Your task to perform on an android device: Go to Google Image 0: 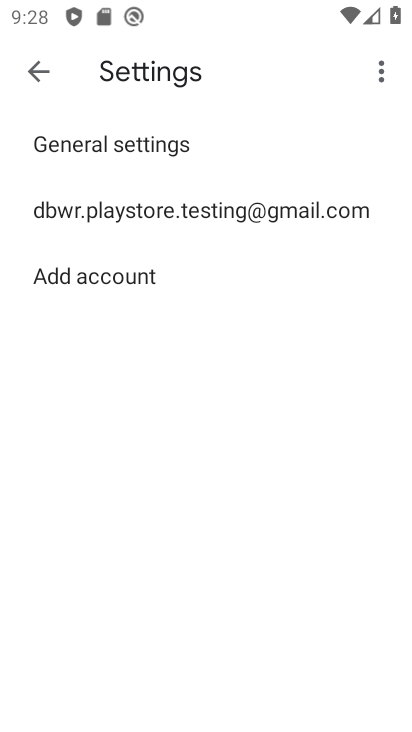
Step 0: press home button
Your task to perform on an android device: Go to Google Image 1: 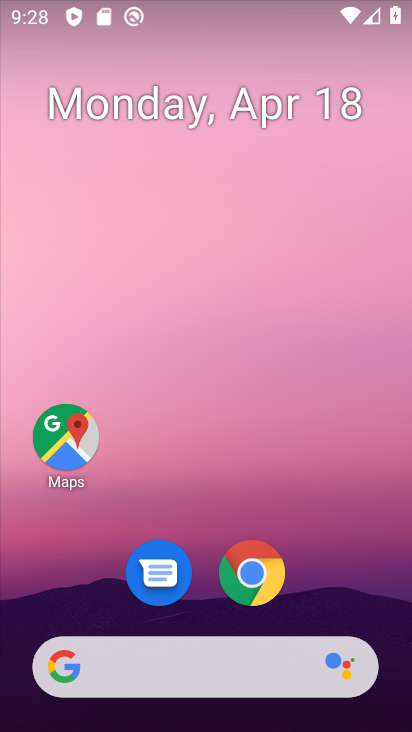
Step 1: drag from (363, 511) to (277, 38)
Your task to perform on an android device: Go to Google Image 2: 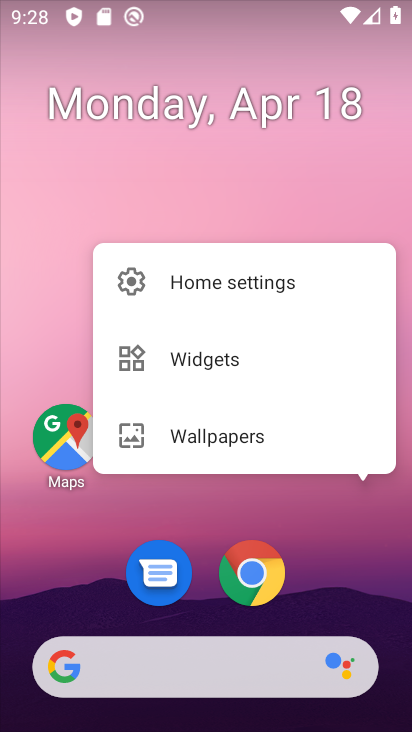
Step 2: click (236, 168)
Your task to perform on an android device: Go to Google Image 3: 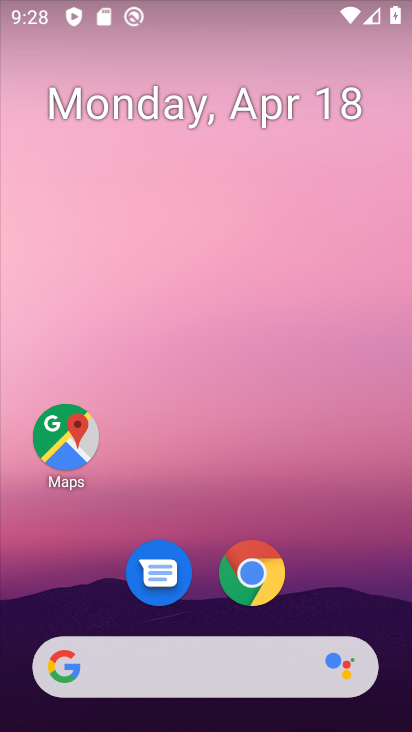
Step 3: drag from (335, 569) to (279, 80)
Your task to perform on an android device: Go to Google Image 4: 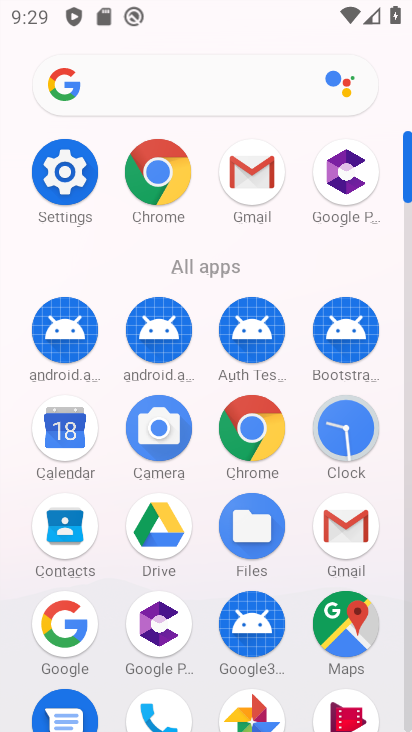
Step 4: click (46, 621)
Your task to perform on an android device: Go to Google Image 5: 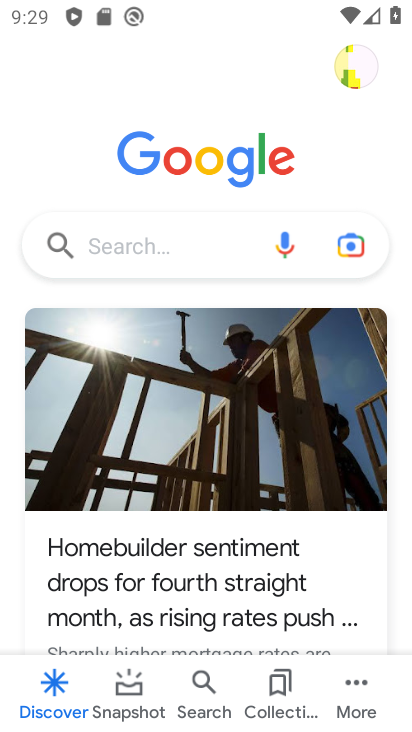
Step 5: task complete